Your task to perform on an android device: install app "Yahoo Mail" Image 0: 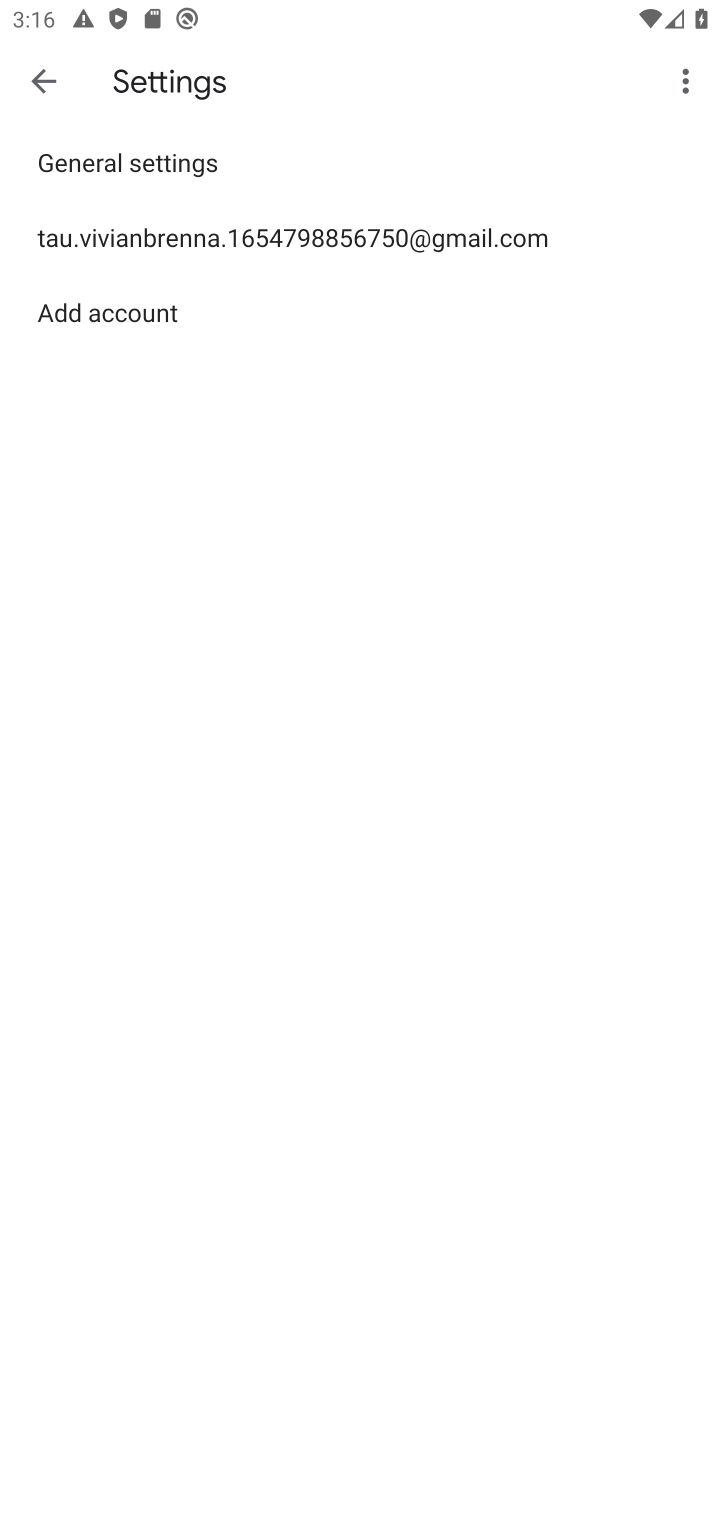
Step 0: press home button
Your task to perform on an android device: install app "Yahoo Mail" Image 1: 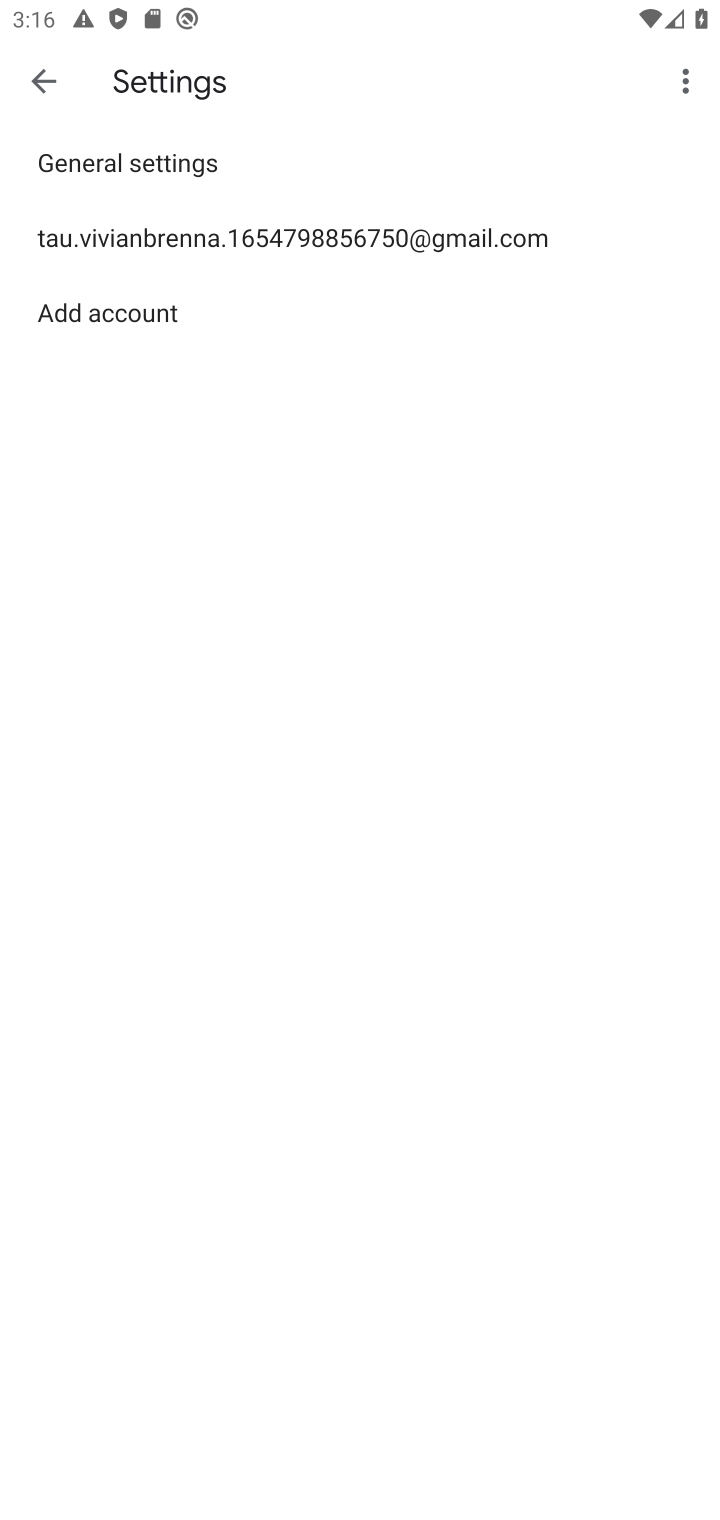
Step 1: press home button
Your task to perform on an android device: install app "Yahoo Mail" Image 2: 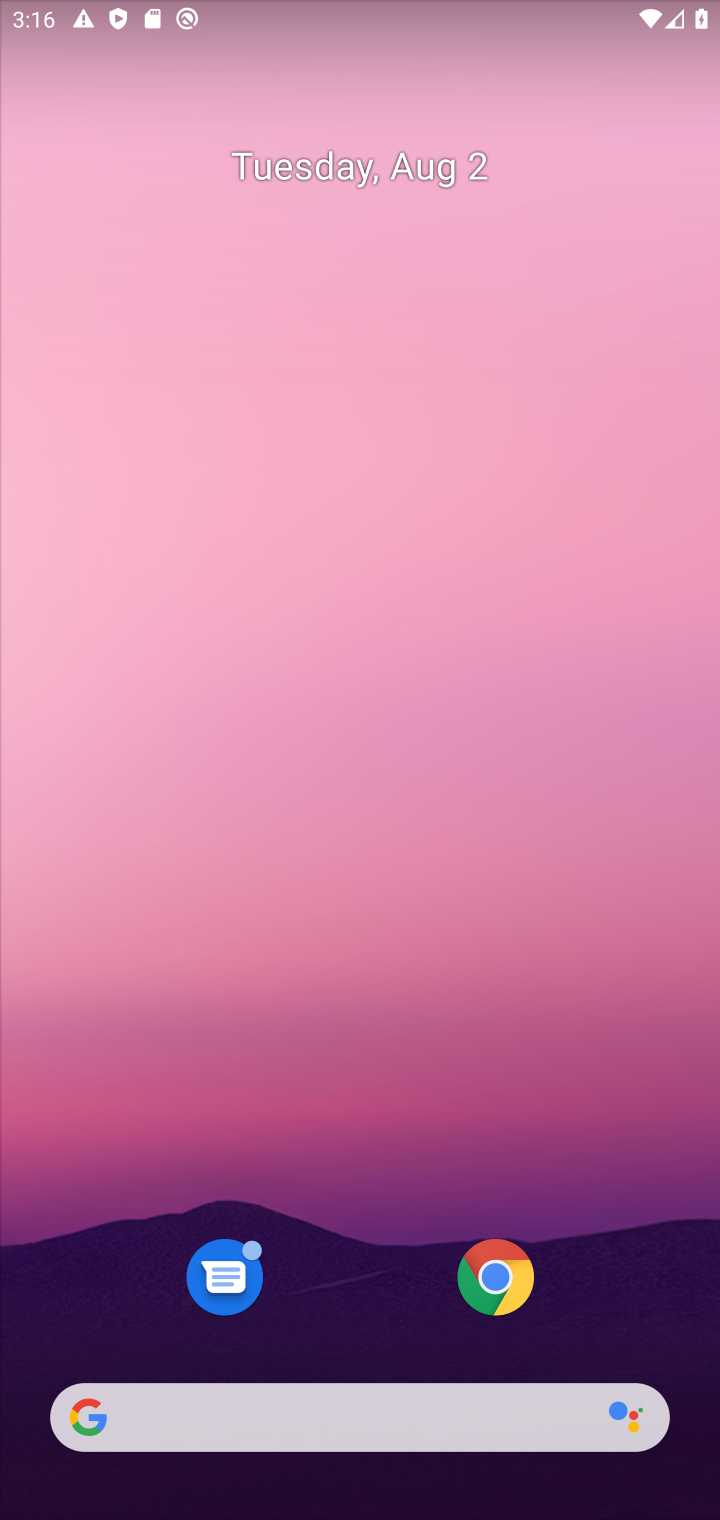
Step 2: drag from (342, 1007) to (369, 135)
Your task to perform on an android device: install app "Yahoo Mail" Image 3: 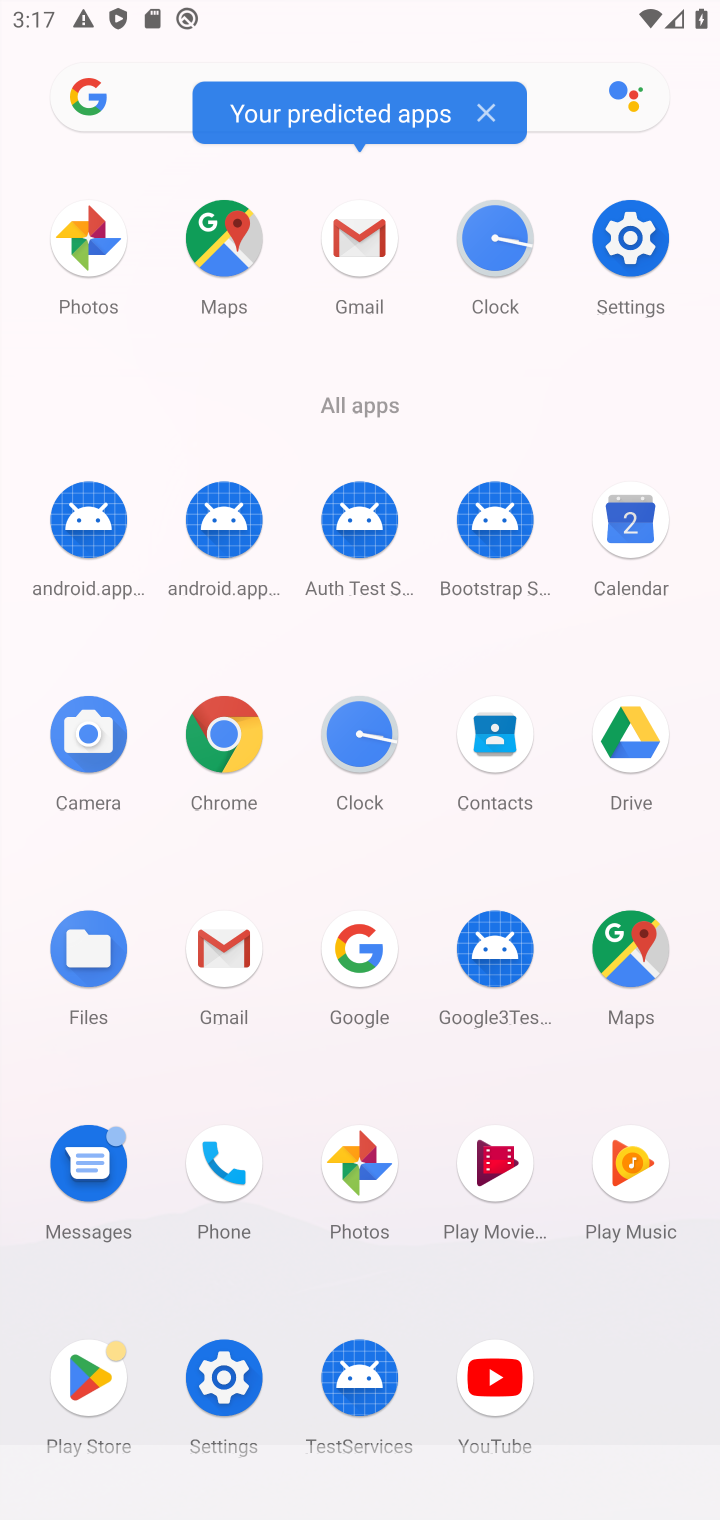
Step 3: click (226, 945)
Your task to perform on an android device: install app "Yahoo Mail" Image 4: 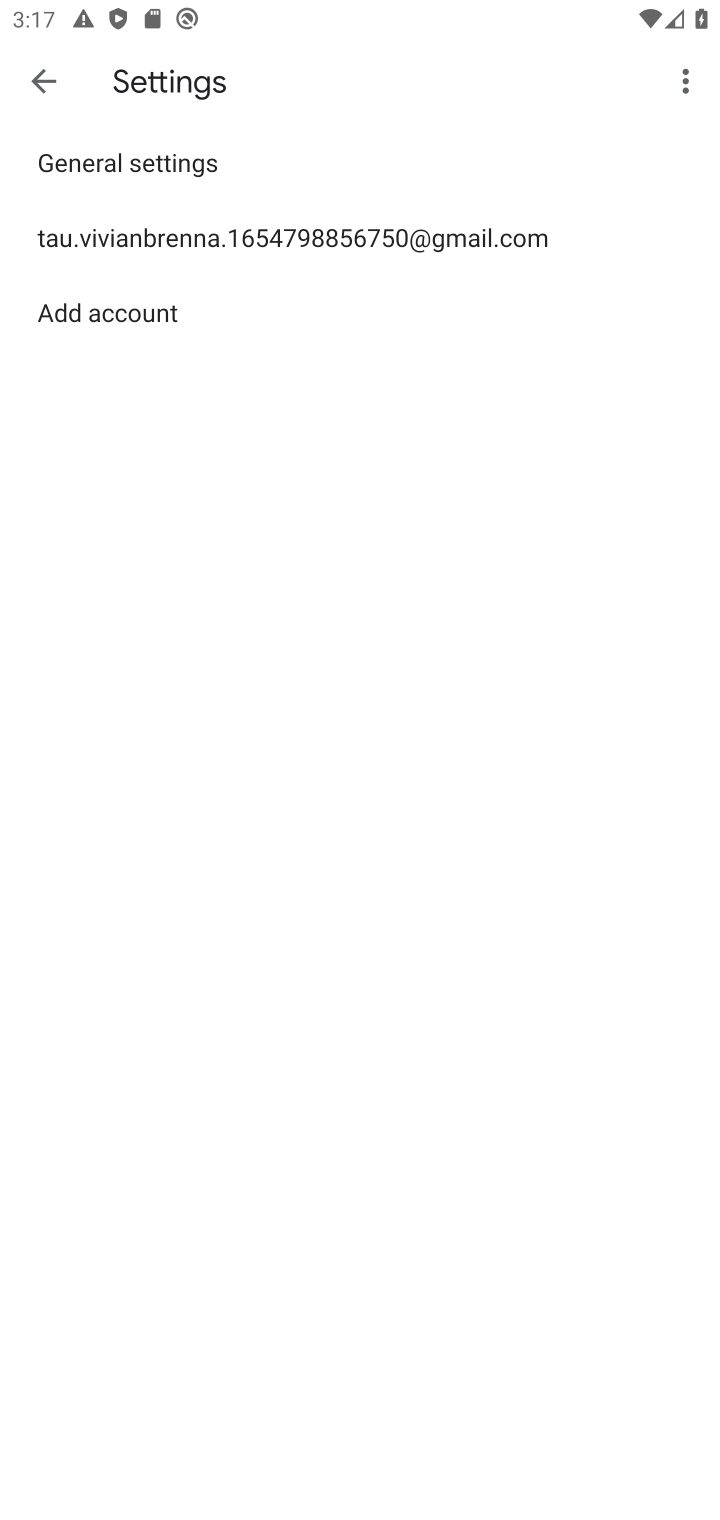
Step 4: press home button
Your task to perform on an android device: install app "Yahoo Mail" Image 5: 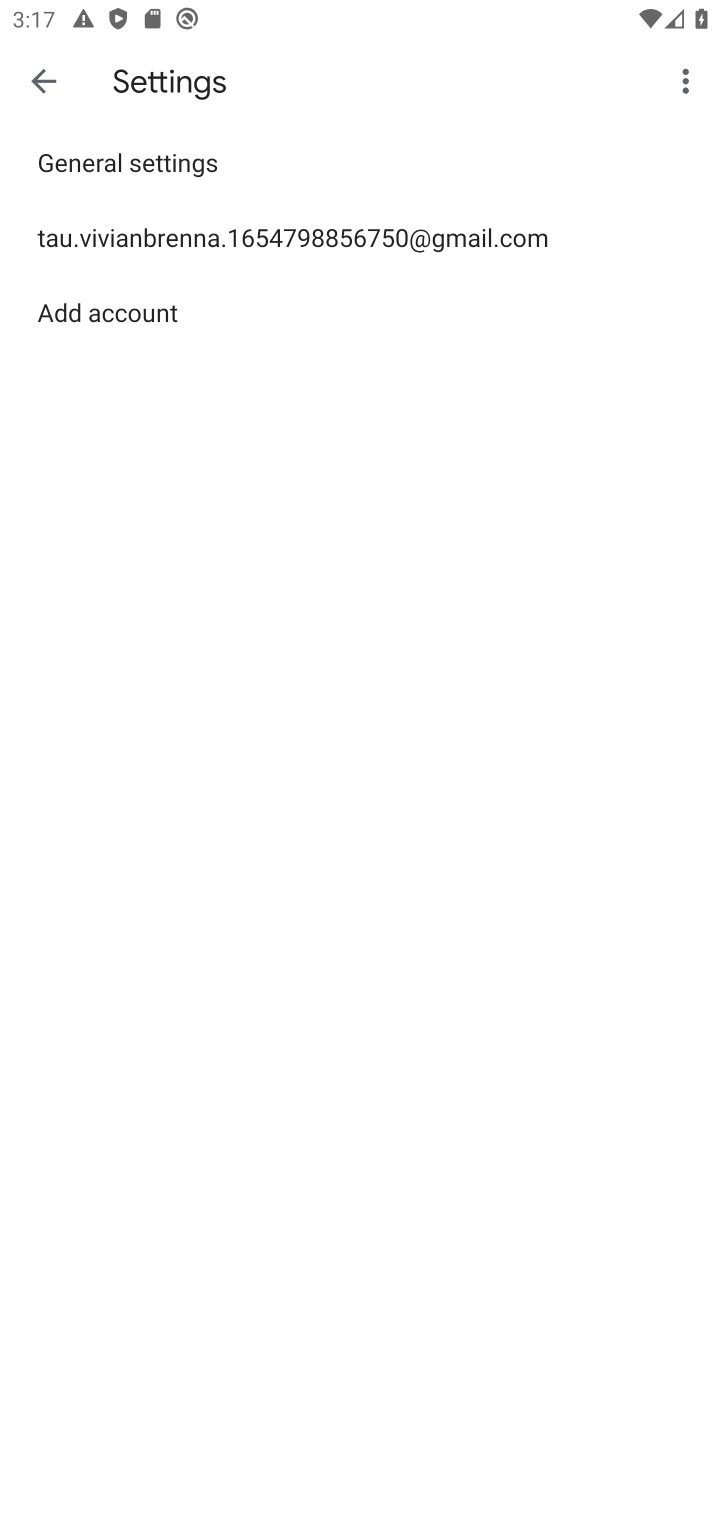
Step 5: press home button
Your task to perform on an android device: install app "Yahoo Mail" Image 6: 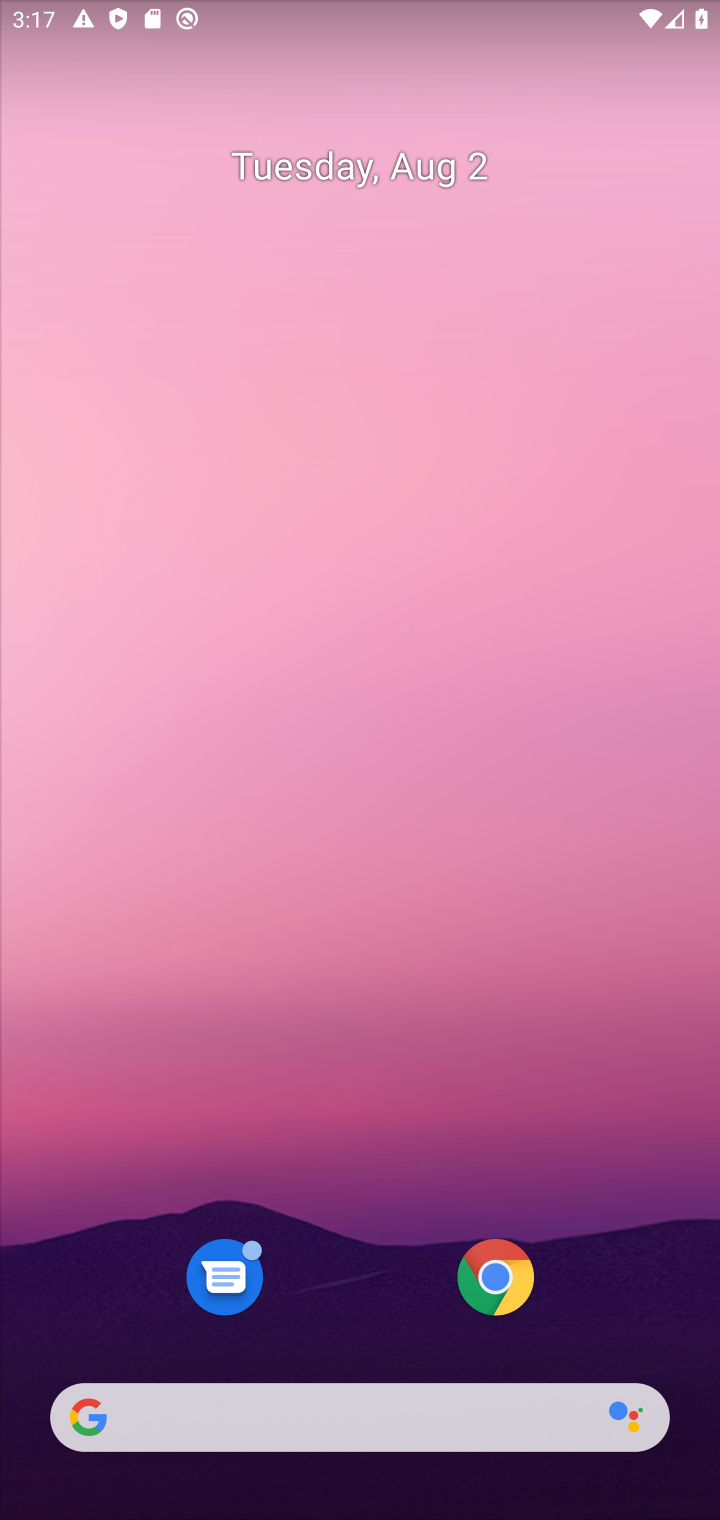
Step 6: drag from (348, 1284) to (369, 203)
Your task to perform on an android device: install app "Yahoo Mail" Image 7: 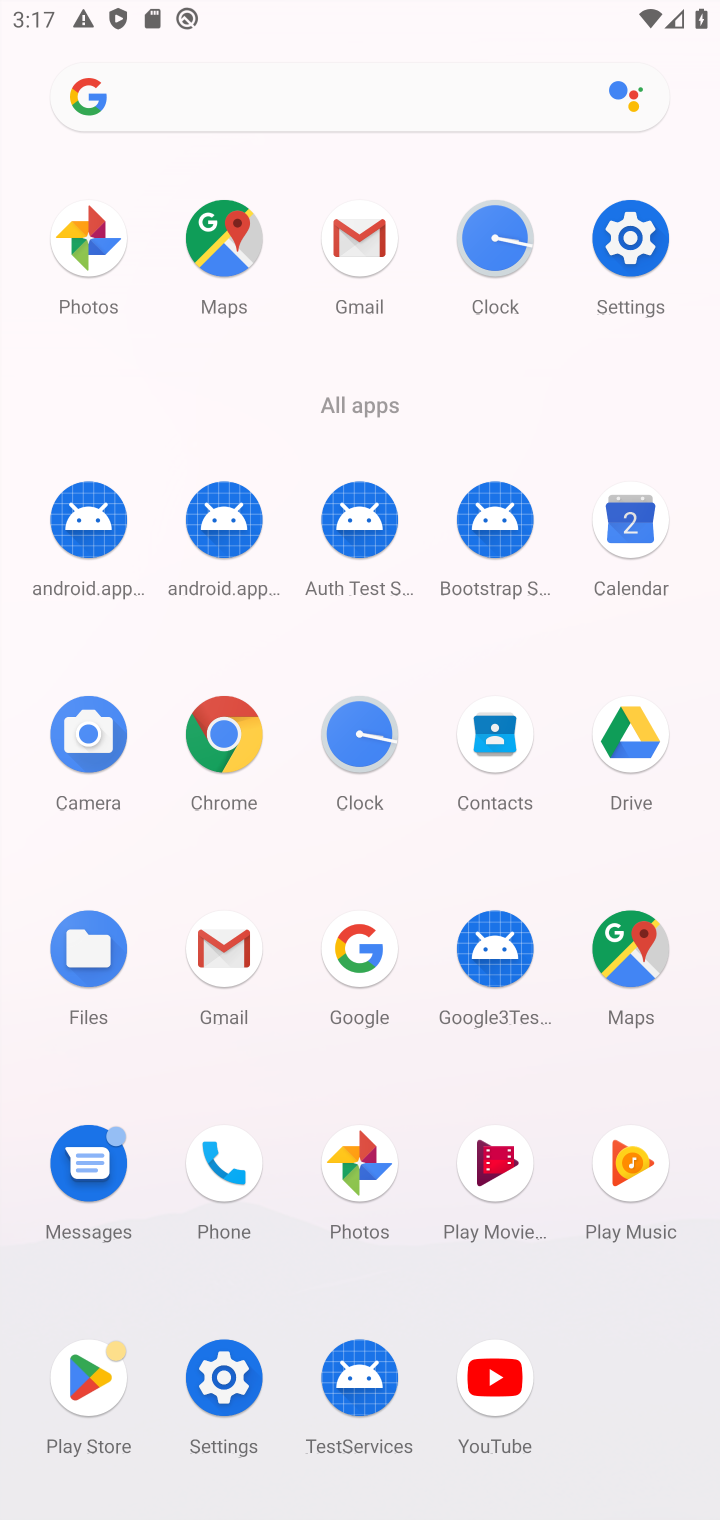
Step 7: click (60, 1360)
Your task to perform on an android device: install app "Yahoo Mail" Image 8: 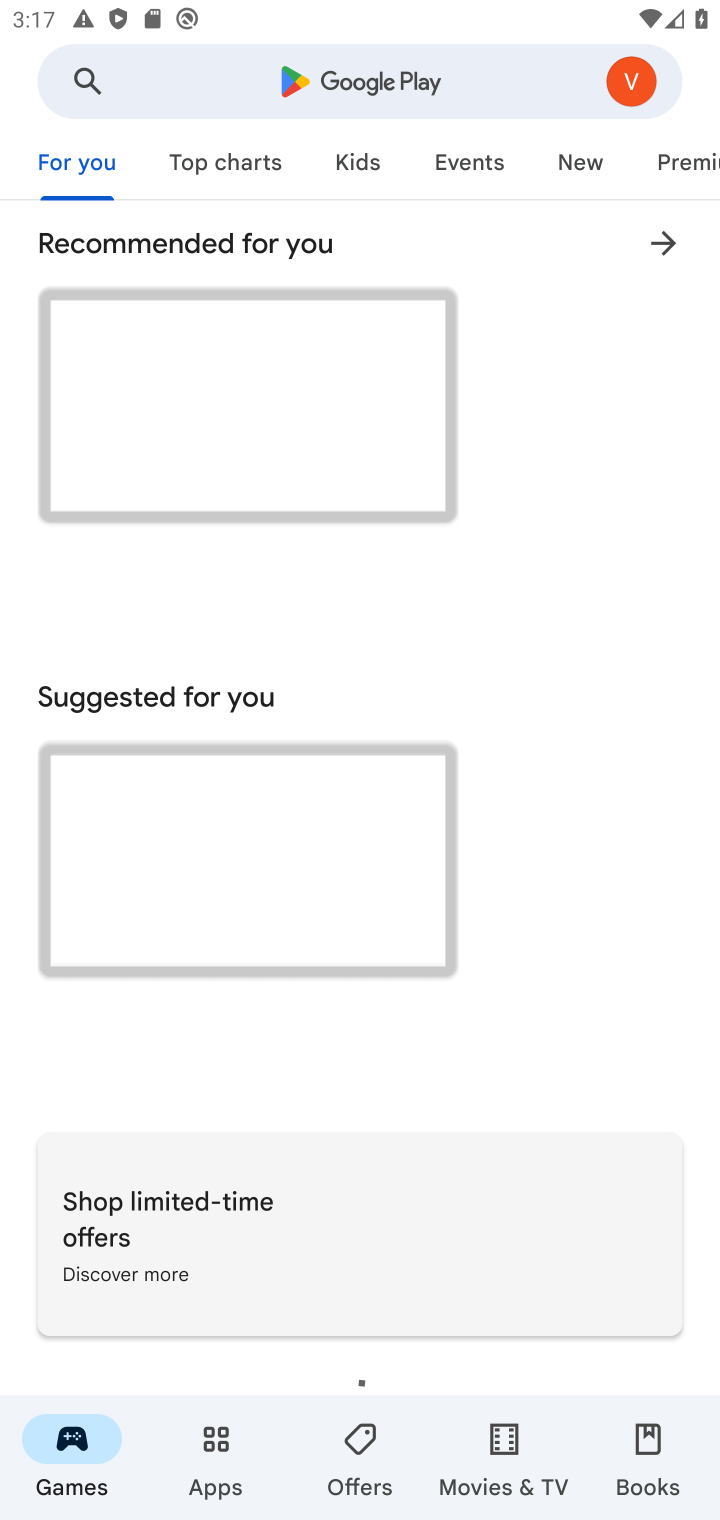
Step 8: click (407, 94)
Your task to perform on an android device: install app "Yahoo Mail" Image 9: 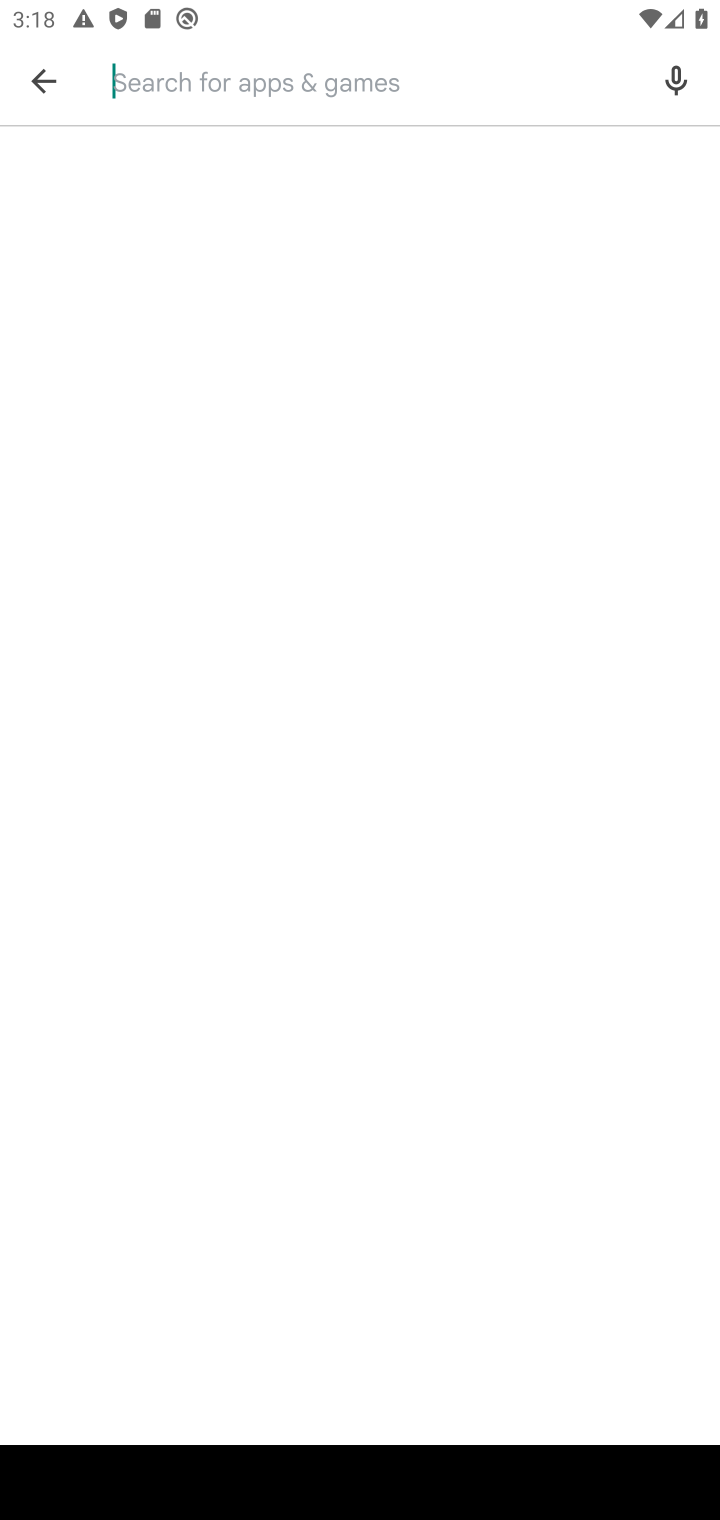
Step 9: type "Yahoo Mail"
Your task to perform on an android device: install app "Yahoo Mail" Image 10: 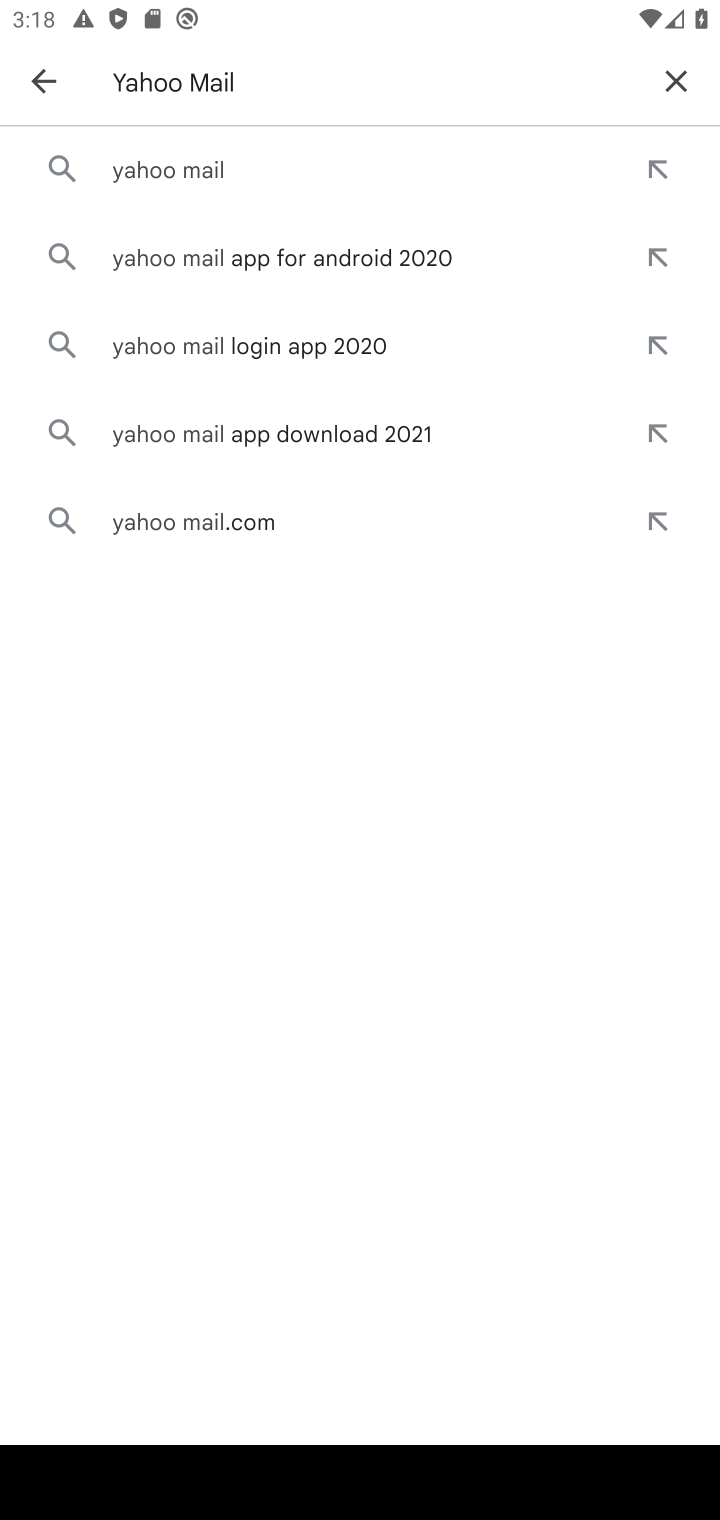
Step 10: press enter
Your task to perform on an android device: install app "Yahoo Mail" Image 11: 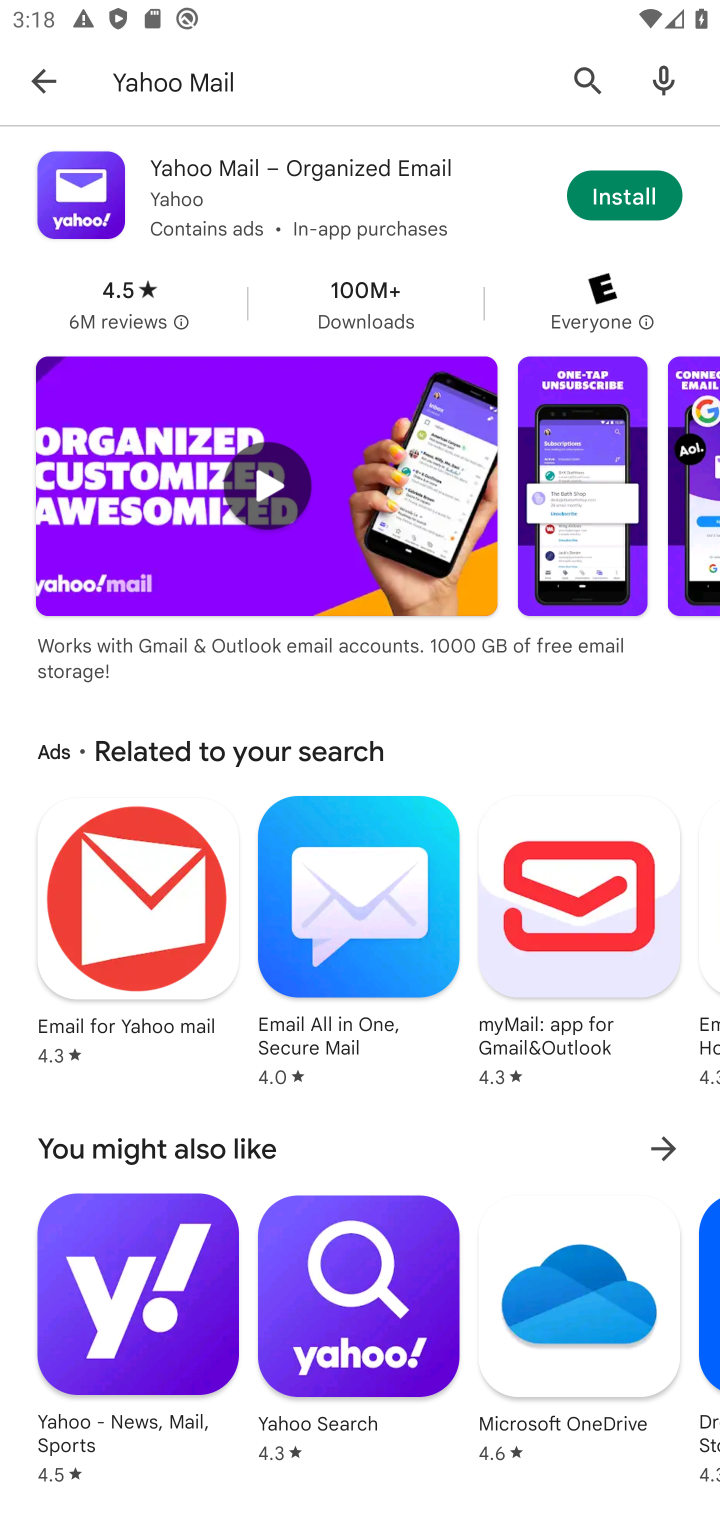
Step 11: click (629, 191)
Your task to perform on an android device: install app "Yahoo Mail" Image 12: 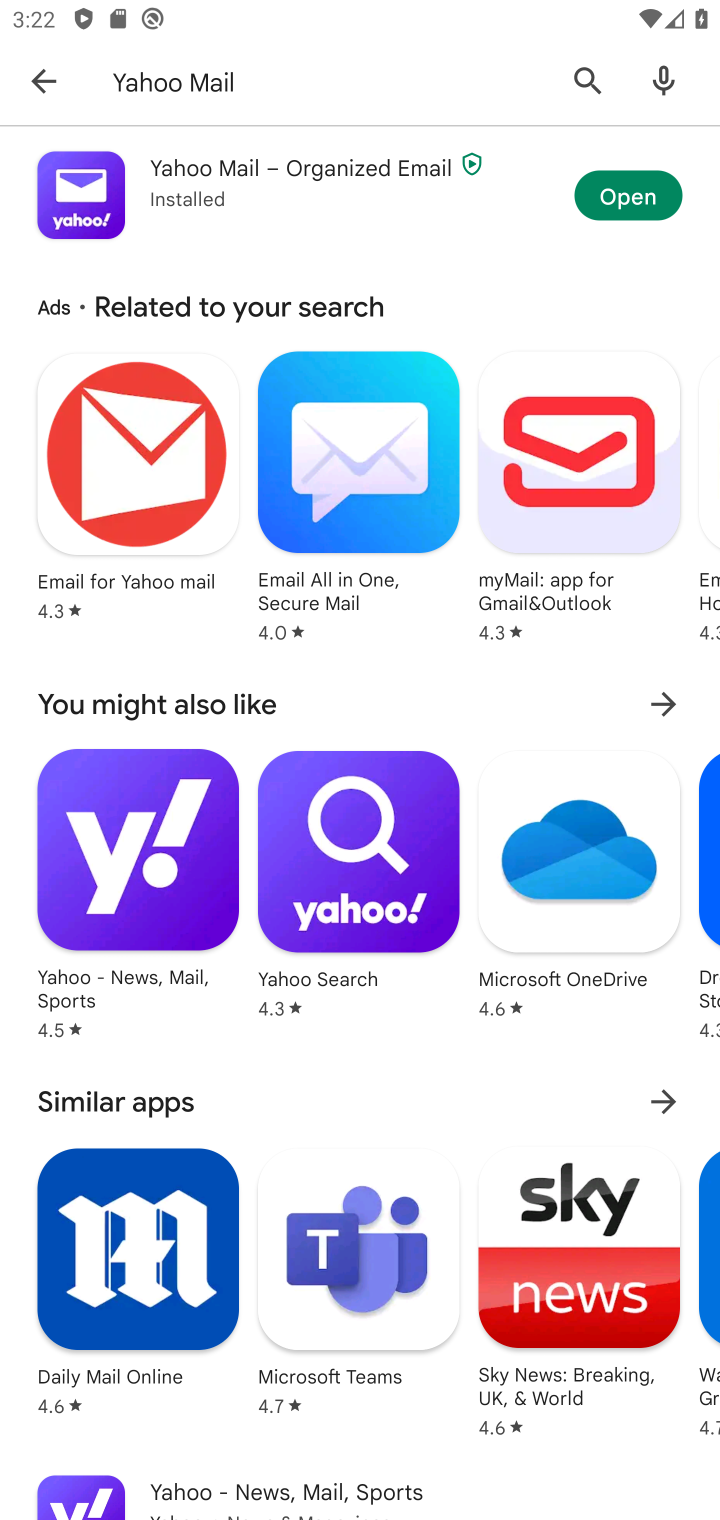
Step 12: task complete